Your task to perform on an android device: Open Amazon Image 0: 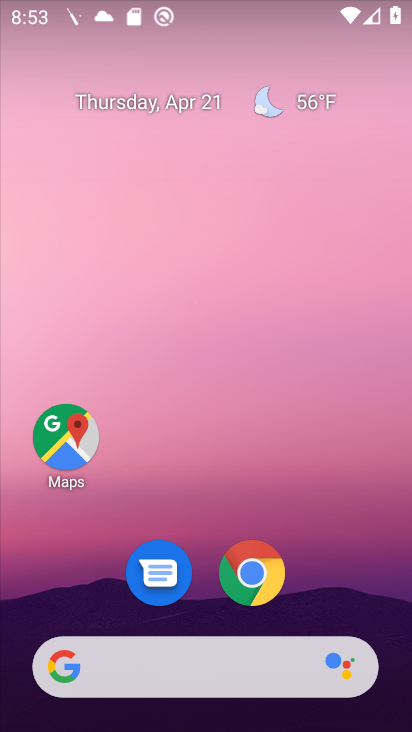
Step 0: click (250, 575)
Your task to perform on an android device: Open Amazon Image 1: 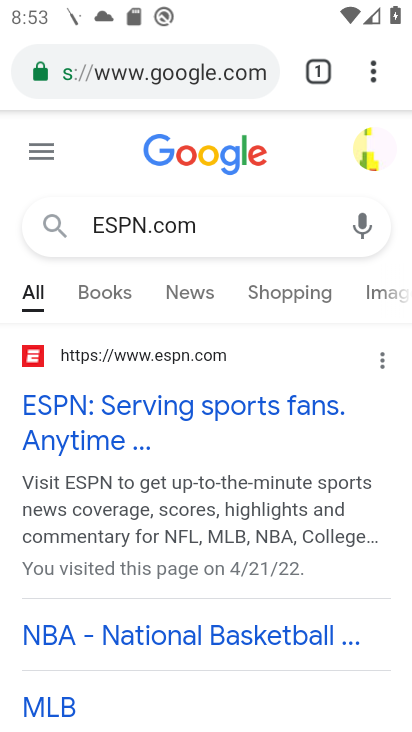
Step 1: click (265, 76)
Your task to perform on an android device: Open Amazon Image 2: 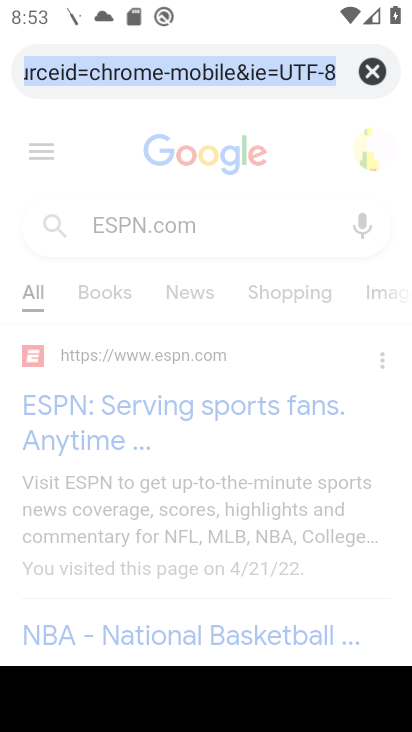
Step 2: click (372, 74)
Your task to perform on an android device: Open Amazon Image 3: 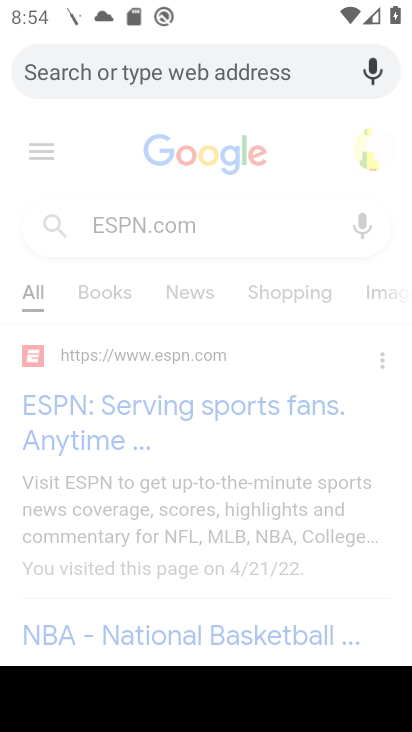
Step 3: type "Amazon"
Your task to perform on an android device: Open Amazon Image 4: 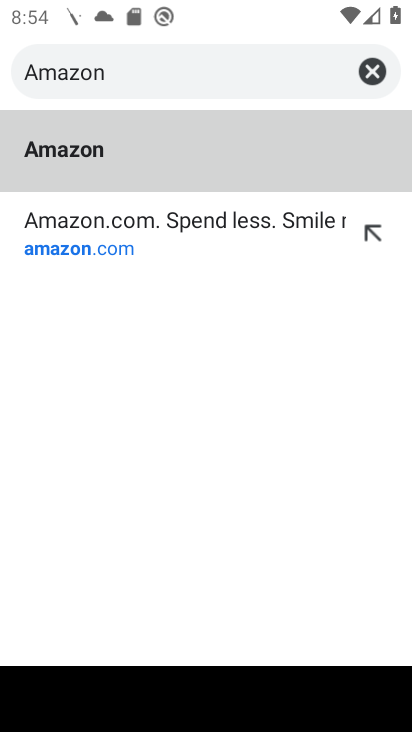
Step 4: click (89, 153)
Your task to perform on an android device: Open Amazon Image 5: 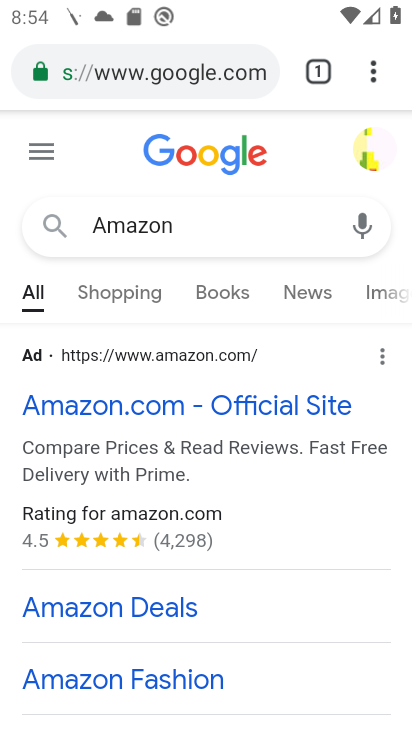
Step 5: click (151, 403)
Your task to perform on an android device: Open Amazon Image 6: 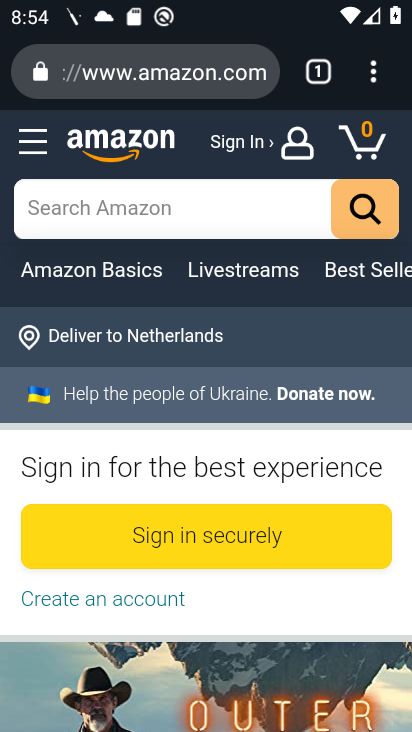
Step 6: task complete